Your task to perform on an android device: change your default location settings in chrome Image 0: 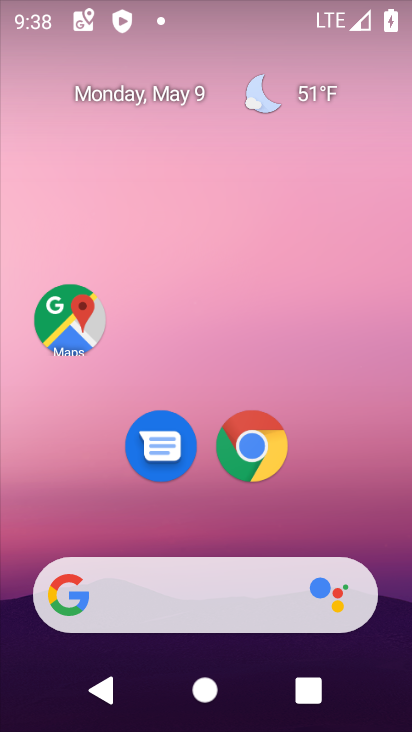
Step 0: click (252, 442)
Your task to perform on an android device: change your default location settings in chrome Image 1: 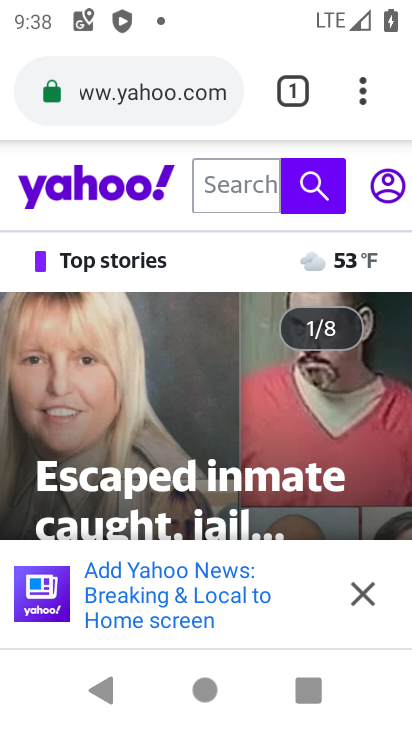
Step 1: click (368, 101)
Your task to perform on an android device: change your default location settings in chrome Image 2: 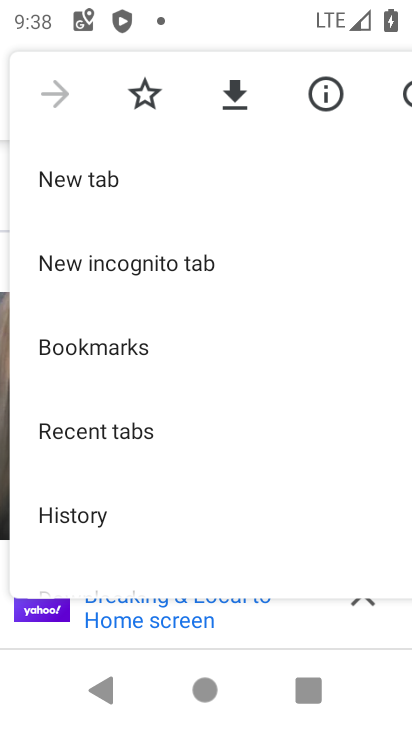
Step 2: drag from (169, 483) to (169, 109)
Your task to perform on an android device: change your default location settings in chrome Image 3: 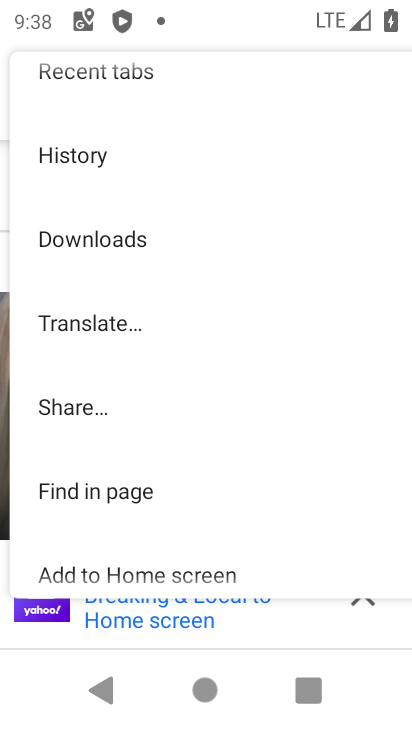
Step 3: drag from (158, 471) to (178, 131)
Your task to perform on an android device: change your default location settings in chrome Image 4: 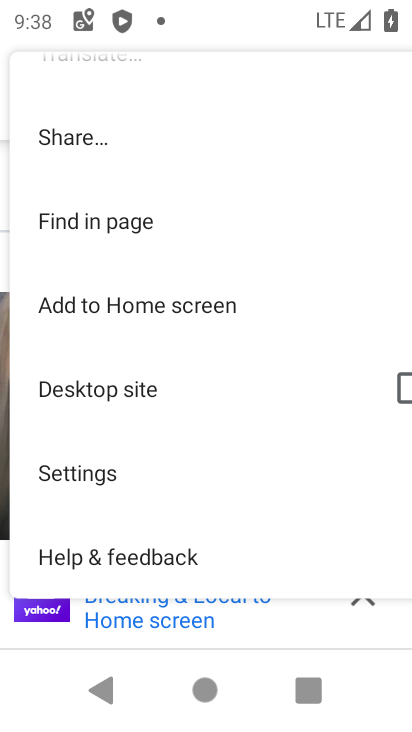
Step 4: click (139, 476)
Your task to perform on an android device: change your default location settings in chrome Image 5: 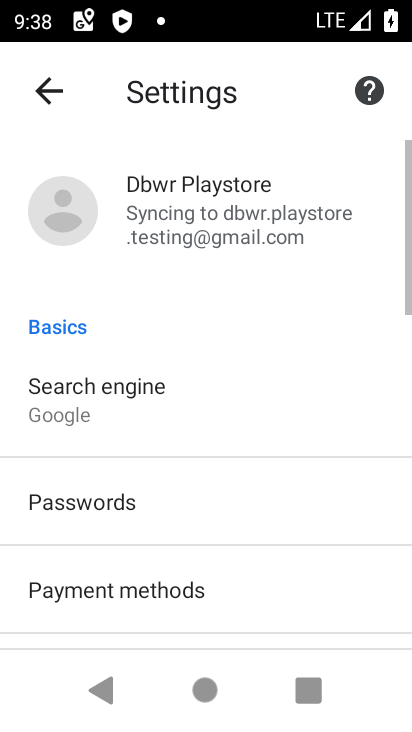
Step 5: drag from (198, 521) to (188, 158)
Your task to perform on an android device: change your default location settings in chrome Image 6: 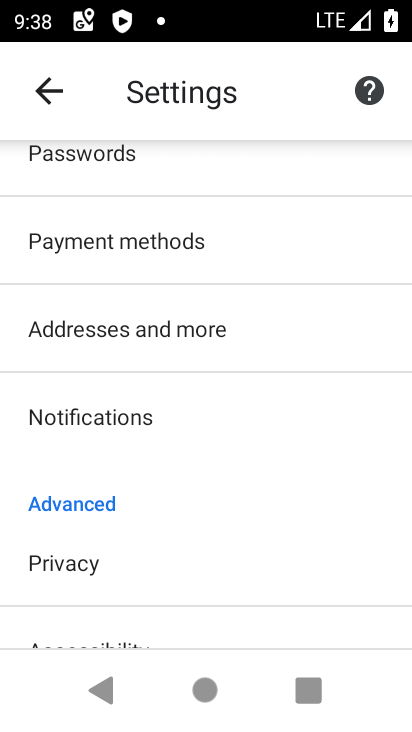
Step 6: drag from (216, 536) to (227, 294)
Your task to perform on an android device: change your default location settings in chrome Image 7: 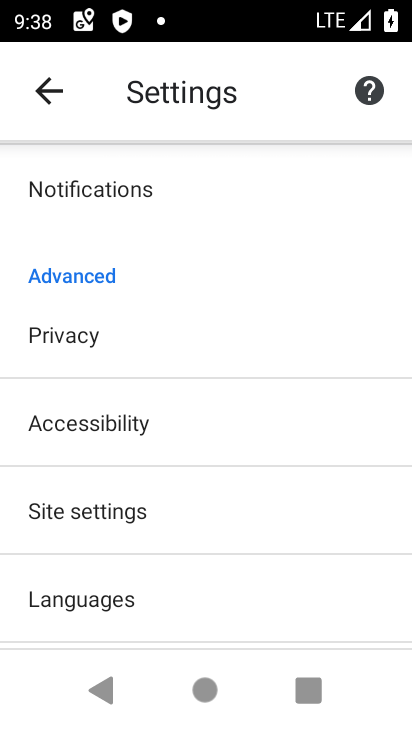
Step 7: click (126, 509)
Your task to perform on an android device: change your default location settings in chrome Image 8: 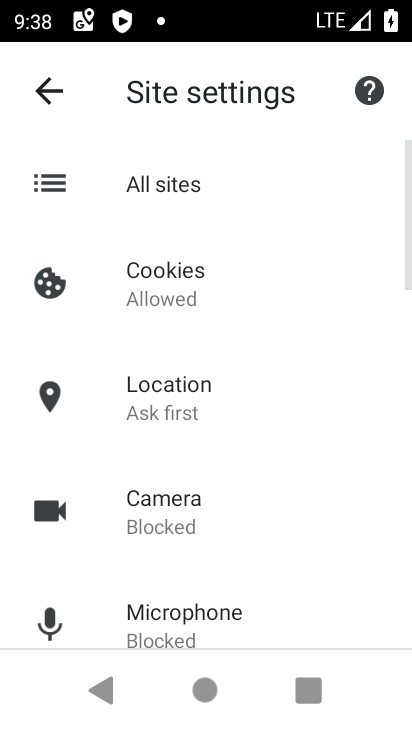
Step 8: click (182, 392)
Your task to perform on an android device: change your default location settings in chrome Image 9: 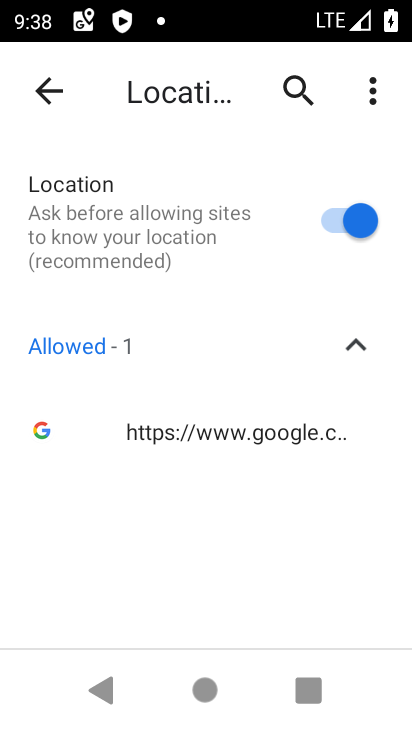
Step 9: click (332, 220)
Your task to perform on an android device: change your default location settings in chrome Image 10: 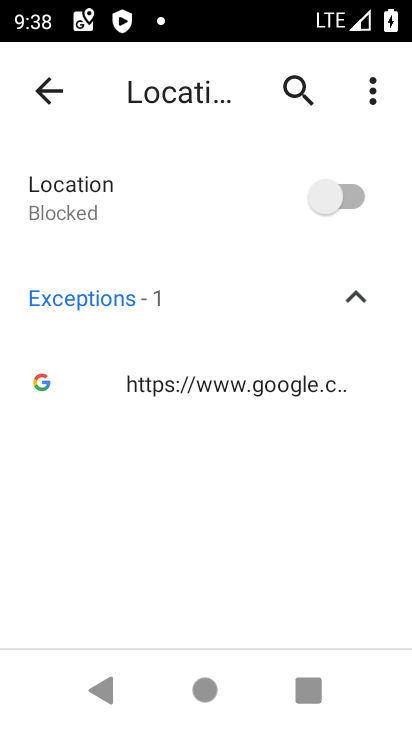
Step 10: task complete